Your task to perform on an android device: change the clock display to digital Image 0: 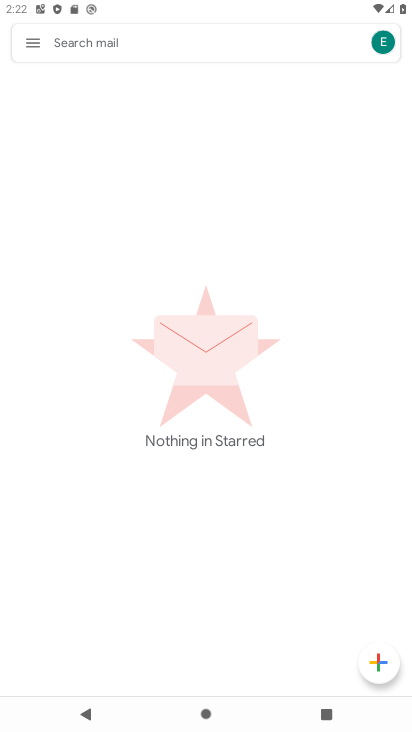
Step 0: press home button
Your task to perform on an android device: change the clock display to digital Image 1: 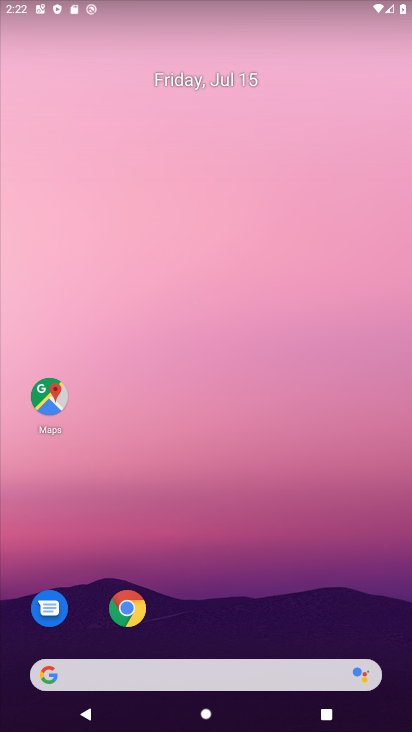
Step 1: drag from (312, 623) to (194, 130)
Your task to perform on an android device: change the clock display to digital Image 2: 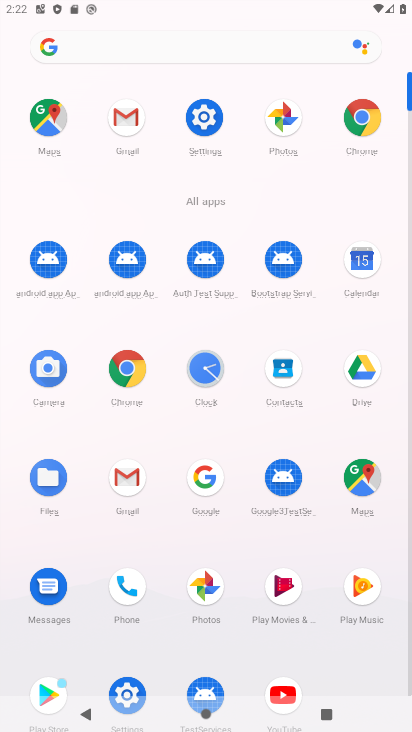
Step 2: click (211, 365)
Your task to perform on an android device: change the clock display to digital Image 3: 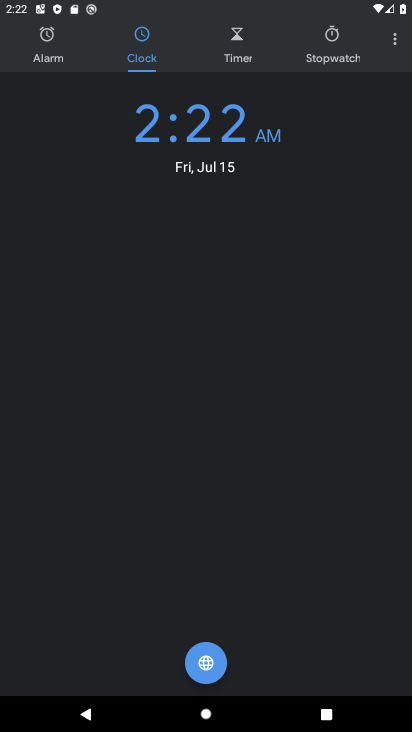
Step 3: click (388, 35)
Your task to perform on an android device: change the clock display to digital Image 4: 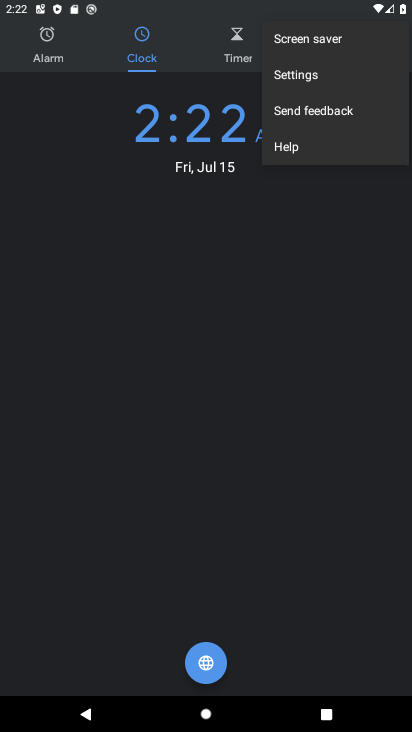
Step 4: click (348, 66)
Your task to perform on an android device: change the clock display to digital Image 5: 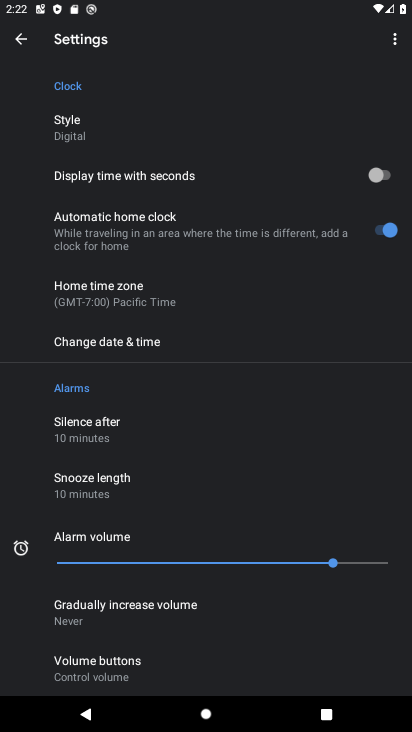
Step 5: click (148, 135)
Your task to perform on an android device: change the clock display to digital Image 6: 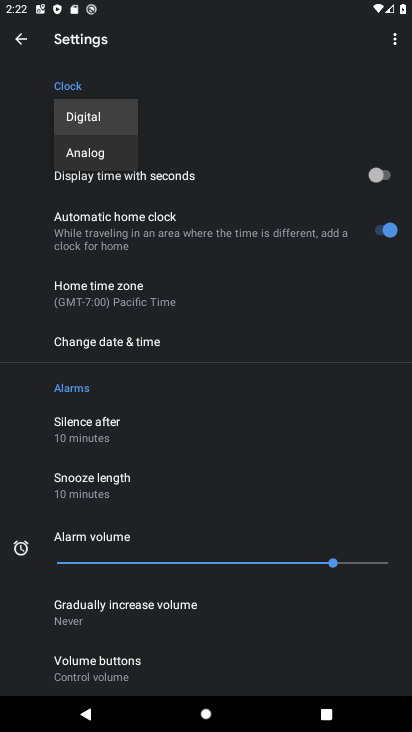
Step 6: task complete